Your task to perform on an android device: Go to settings Image 0: 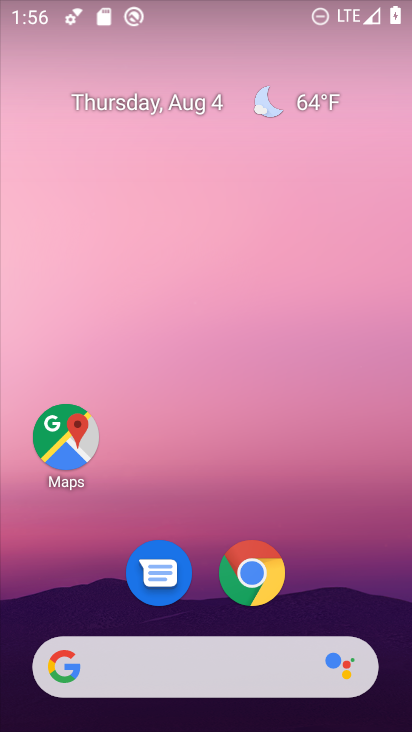
Step 0: drag from (348, 573) to (357, 165)
Your task to perform on an android device: Go to settings Image 1: 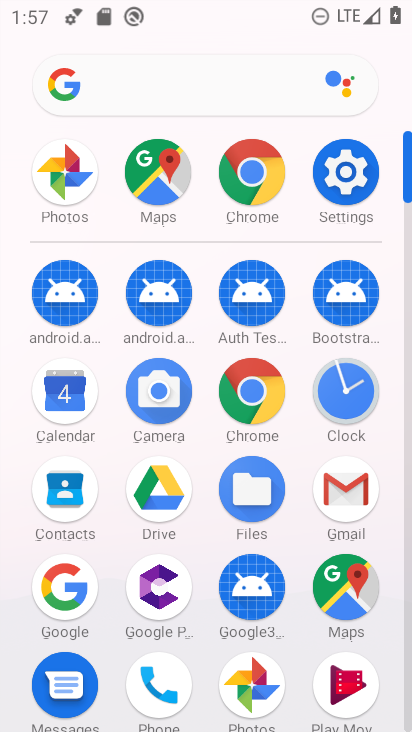
Step 1: click (332, 171)
Your task to perform on an android device: Go to settings Image 2: 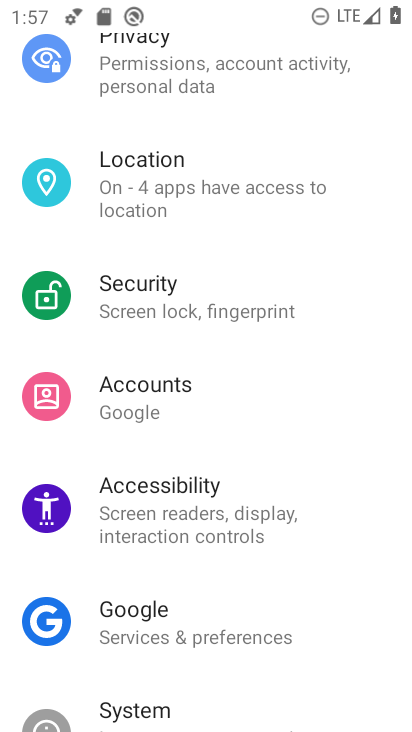
Step 2: task complete